Your task to perform on an android device: turn on translation in the chrome app Image 0: 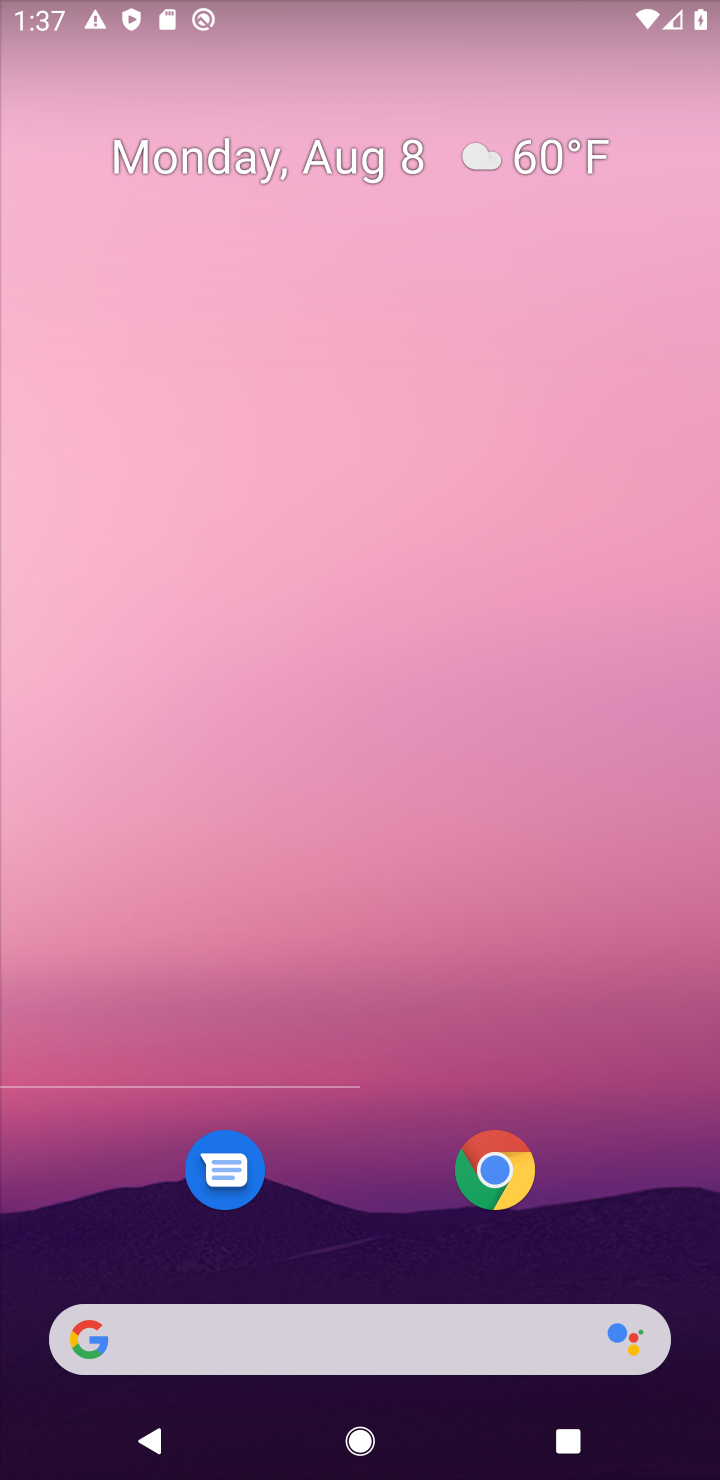
Step 0: press home button
Your task to perform on an android device: turn on translation in the chrome app Image 1: 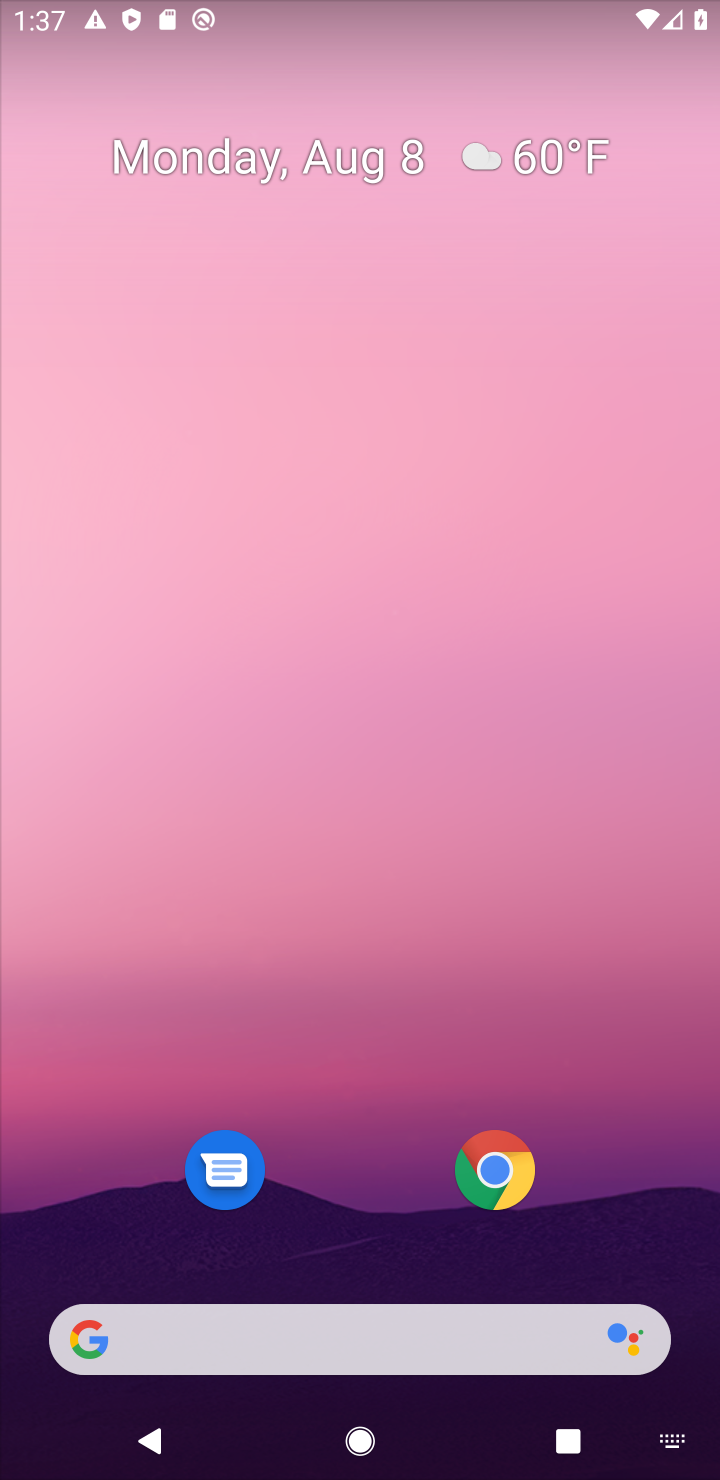
Step 1: click (464, 1188)
Your task to perform on an android device: turn on translation in the chrome app Image 2: 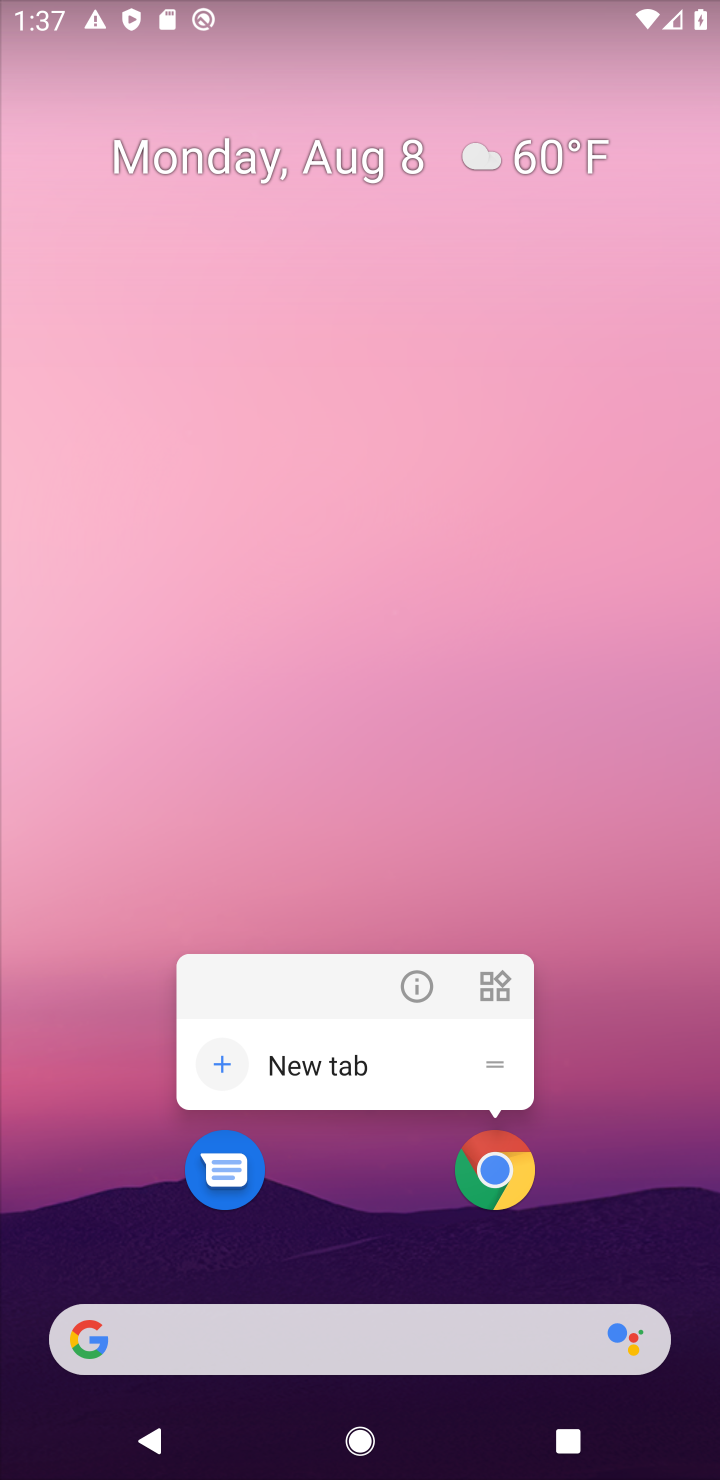
Step 2: click (464, 1188)
Your task to perform on an android device: turn on translation in the chrome app Image 3: 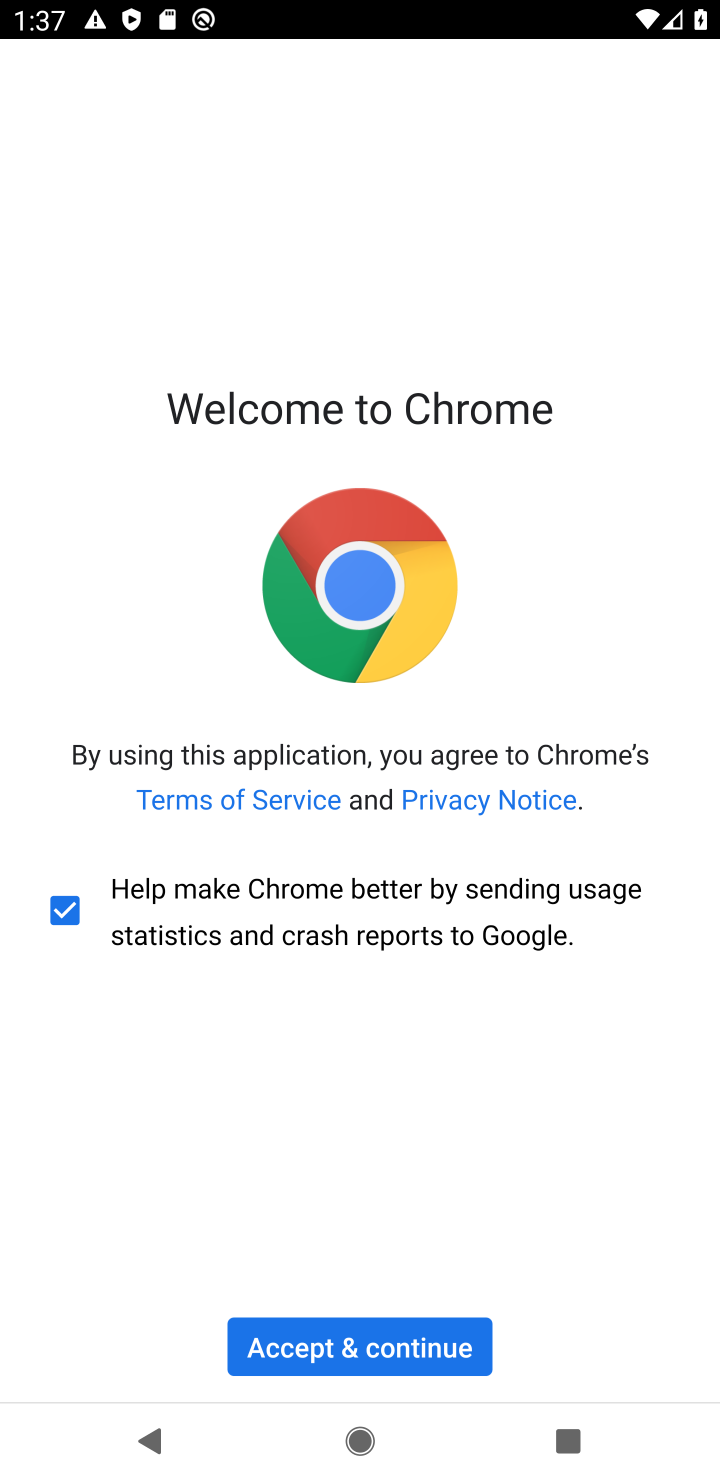
Step 3: click (321, 1331)
Your task to perform on an android device: turn on translation in the chrome app Image 4: 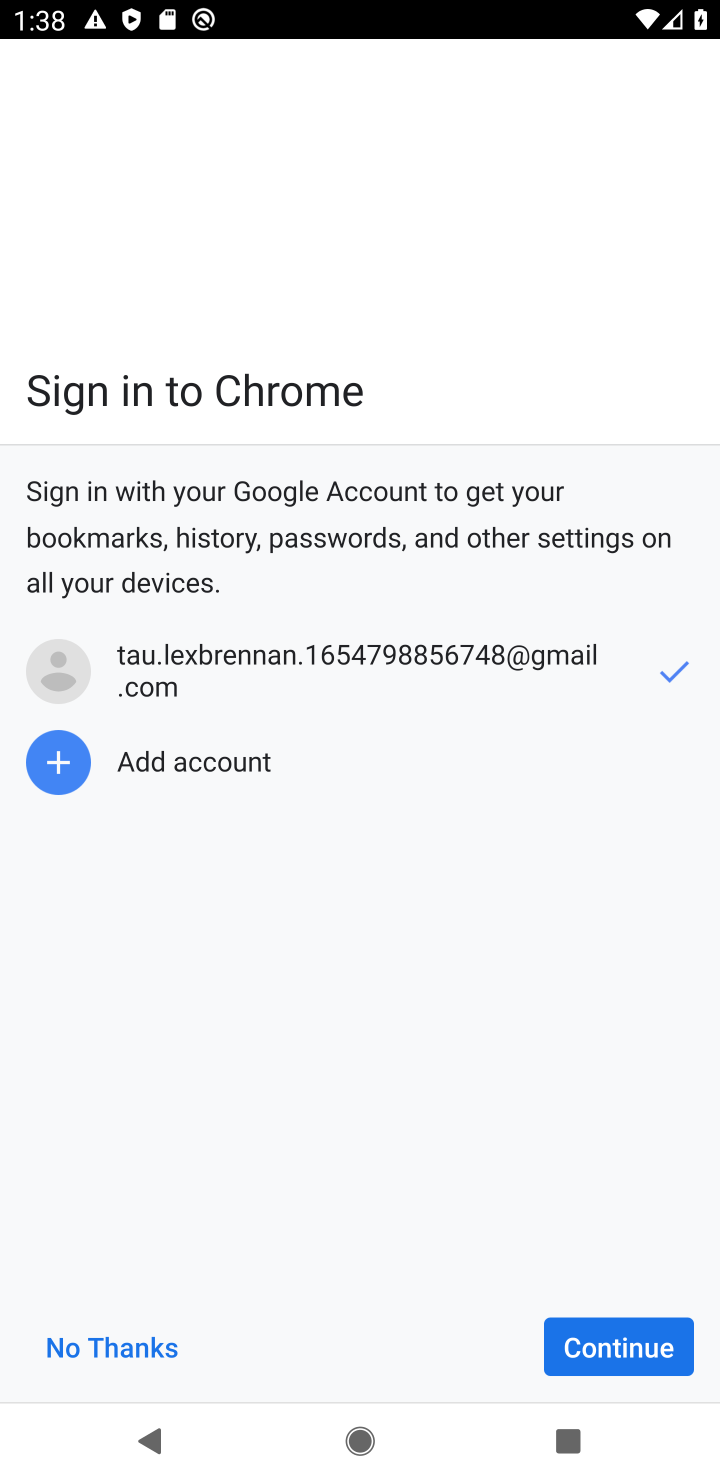
Step 4: click (594, 1318)
Your task to perform on an android device: turn on translation in the chrome app Image 5: 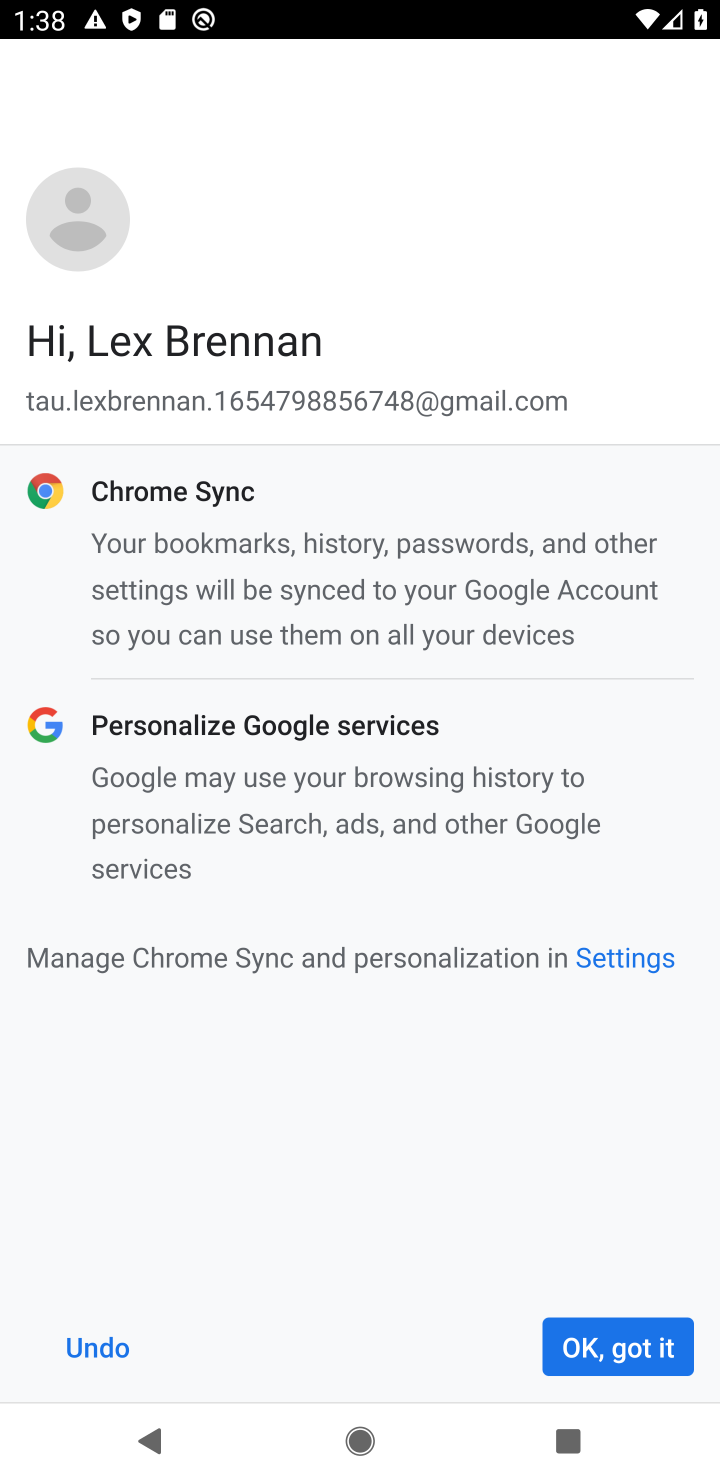
Step 5: press home button
Your task to perform on an android device: turn on translation in the chrome app Image 6: 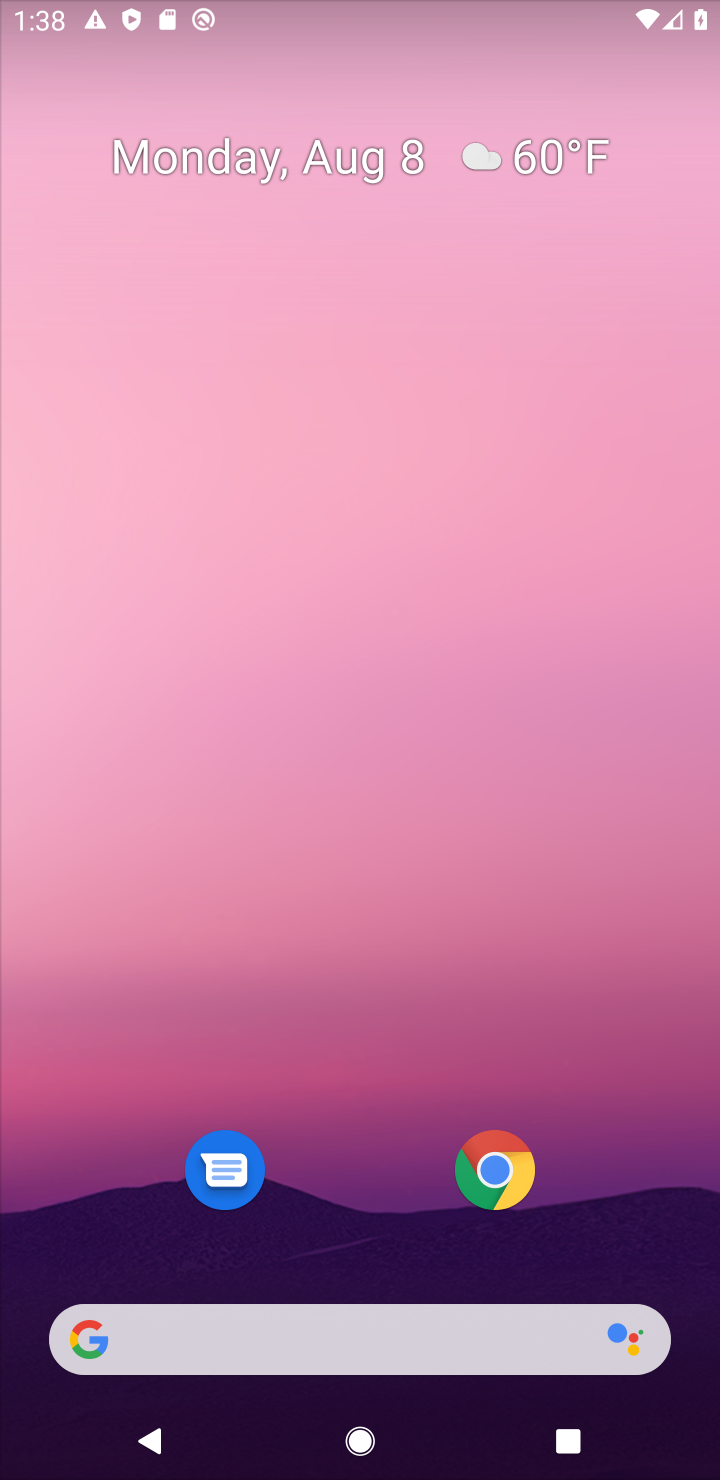
Step 6: click (474, 1175)
Your task to perform on an android device: turn on translation in the chrome app Image 7: 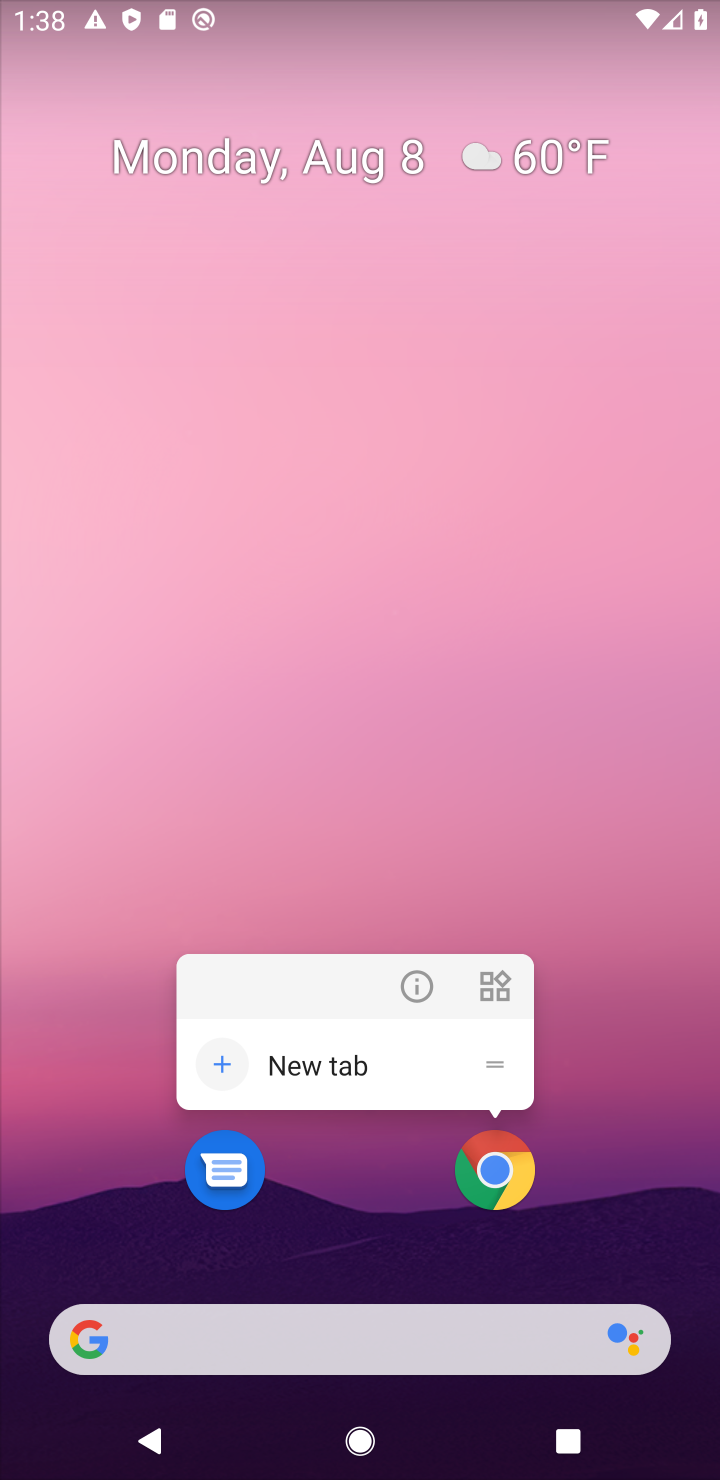
Step 7: click (526, 1157)
Your task to perform on an android device: turn on translation in the chrome app Image 8: 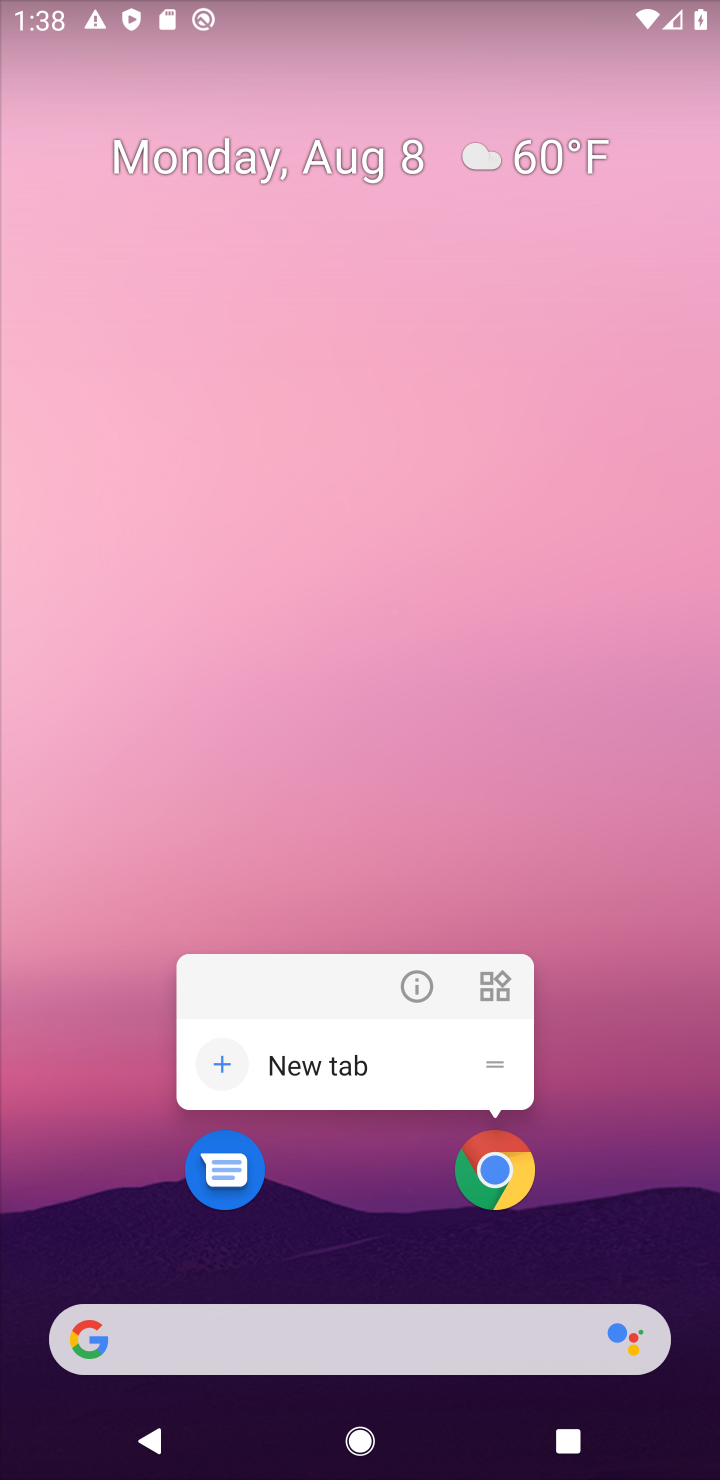
Step 8: click (524, 1157)
Your task to perform on an android device: turn on translation in the chrome app Image 9: 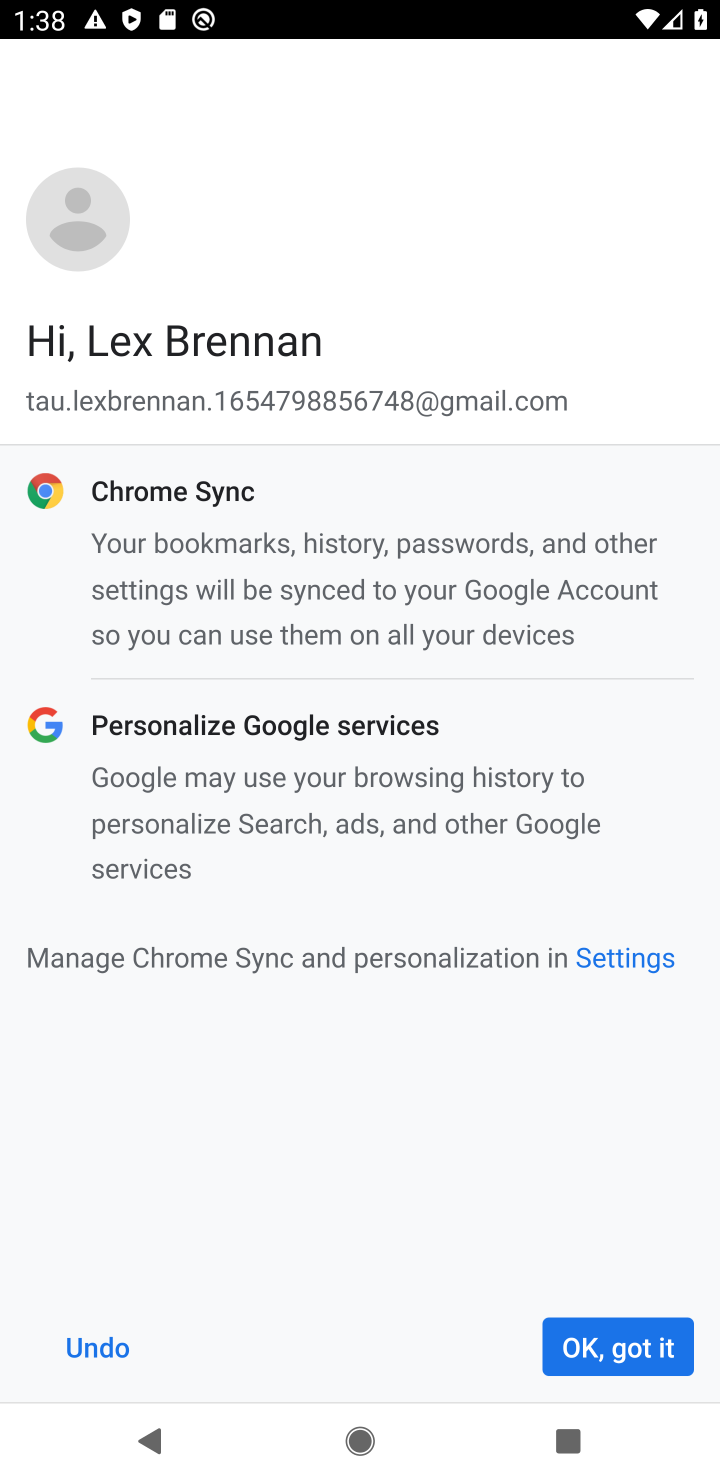
Step 9: click (591, 1330)
Your task to perform on an android device: turn on translation in the chrome app Image 10: 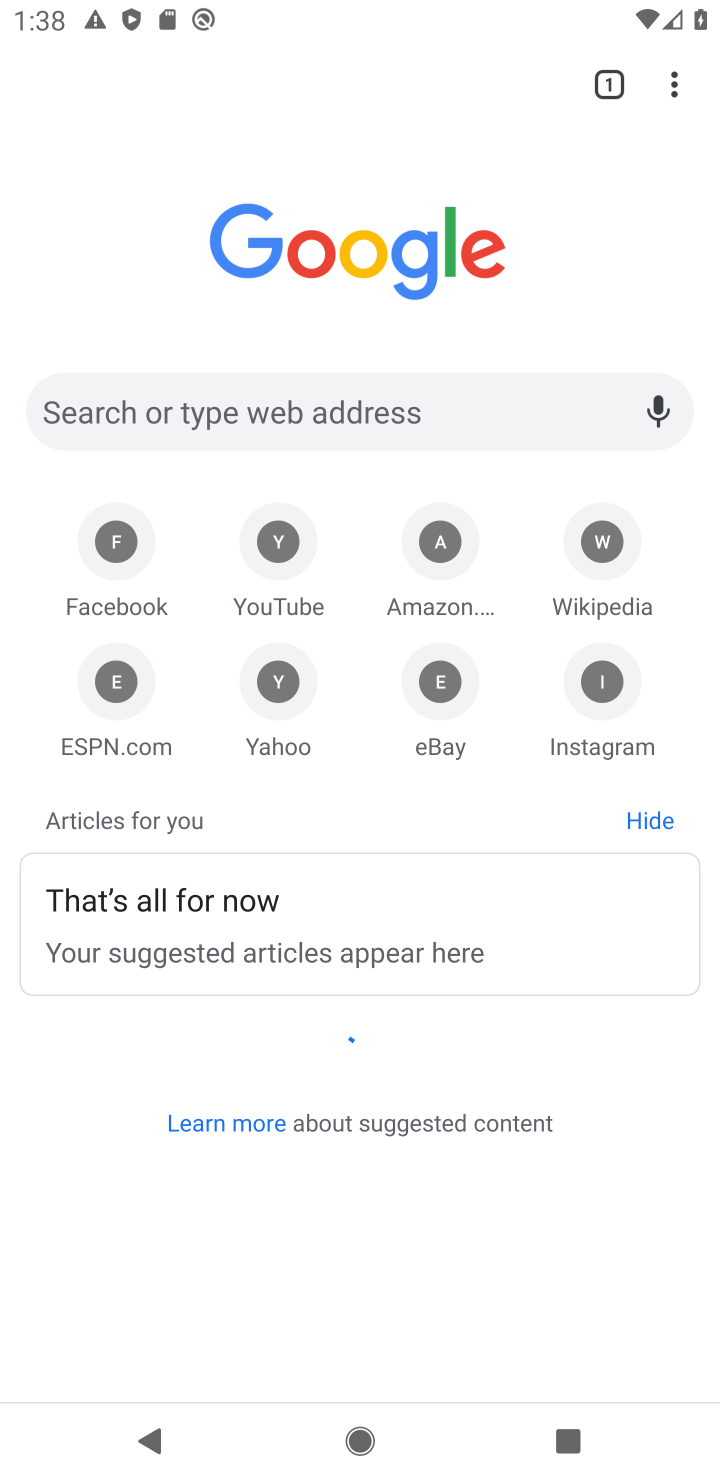
Step 10: click (674, 89)
Your task to perform on an android device: turn on translation in the chrome app Image 11: 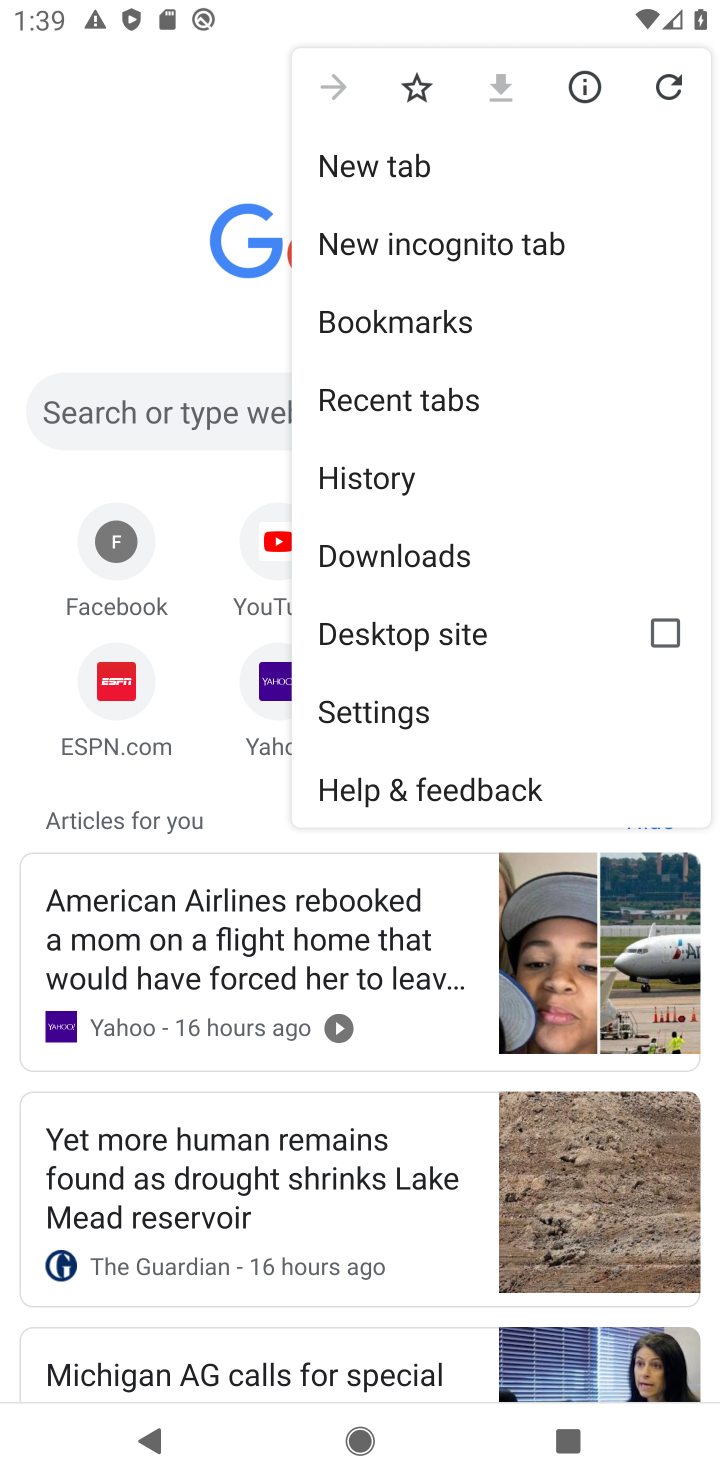
Step 11: click (378, 703)
Your task to perform on an android device: turn on translation in the chrome app Image 12: 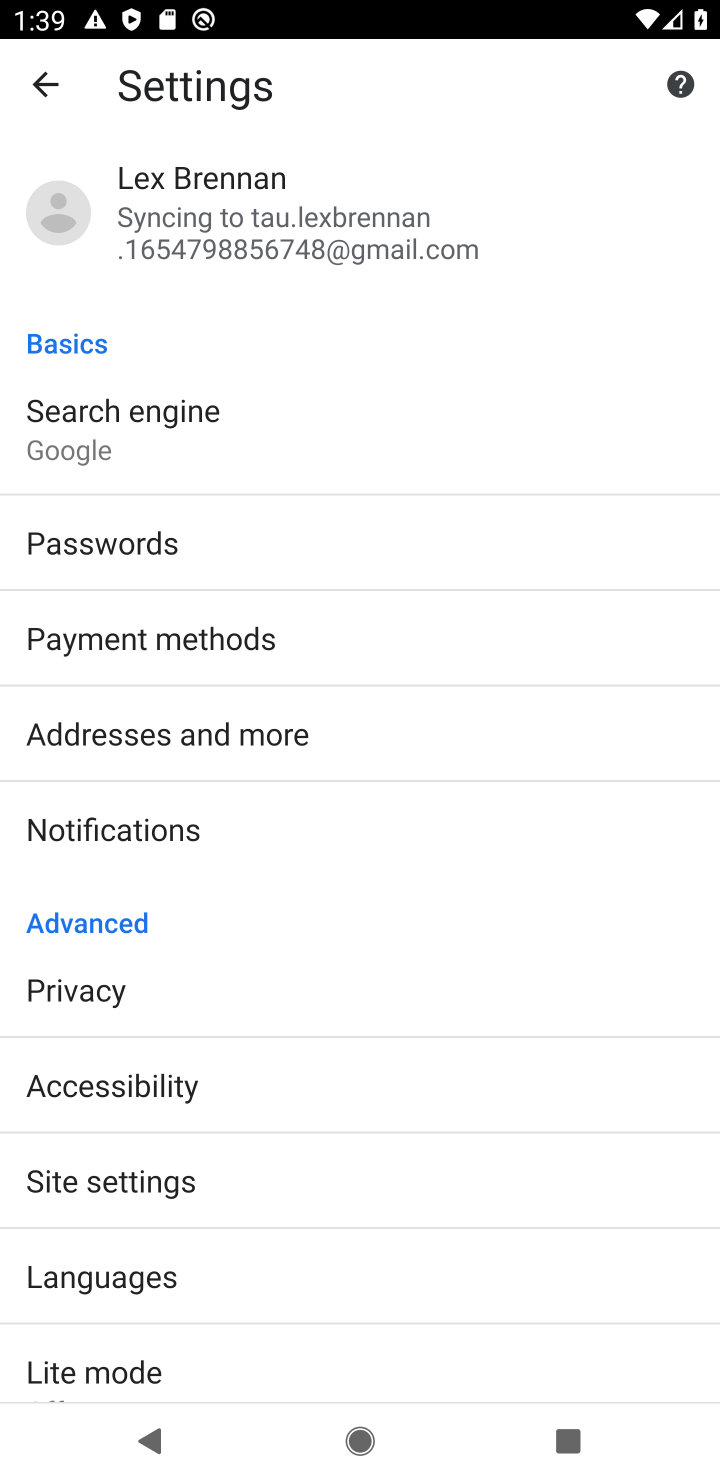
Step 12: click (188, 1268)
Your task to perform on an android device: turn on translation in the chrome app Image 13: 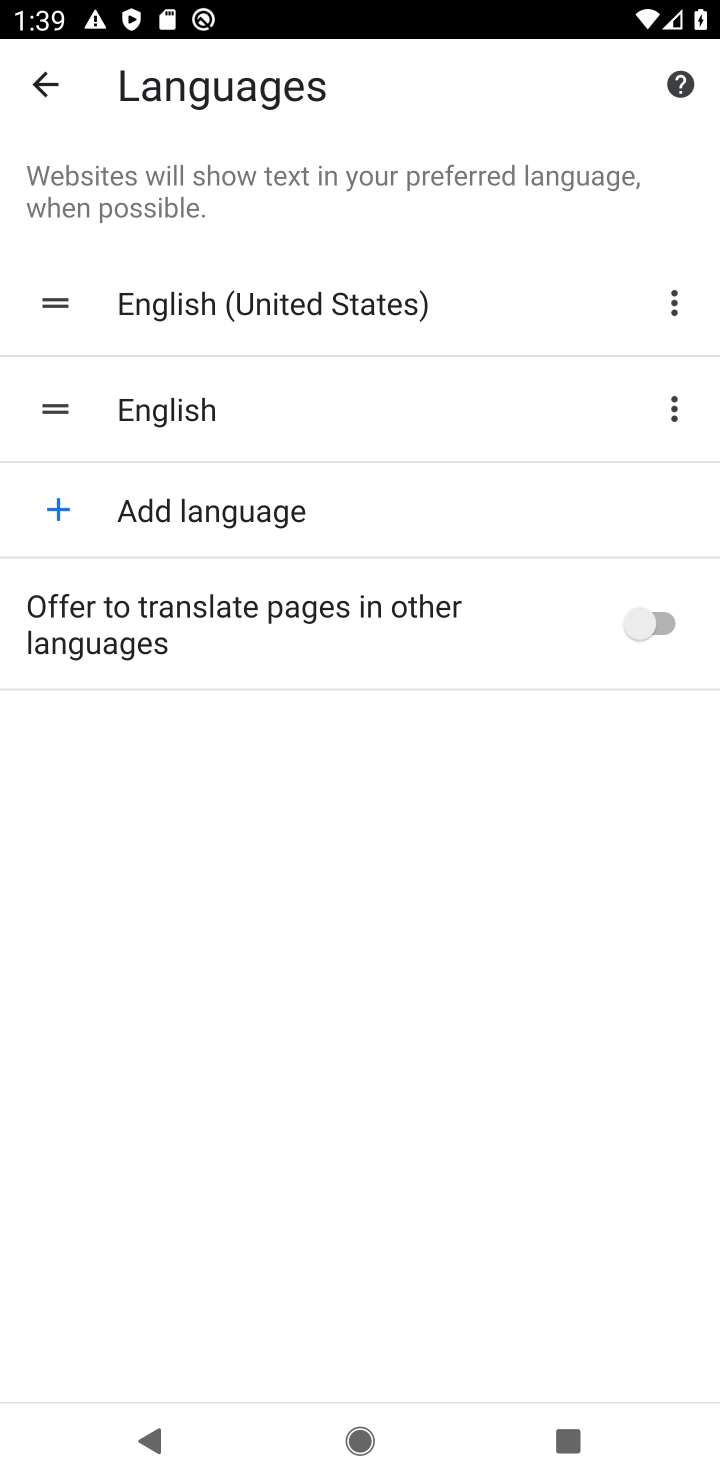
Step 13: click (657, 631)
Your task to perform on an android device: turn on translation in the chrome app Image 14: 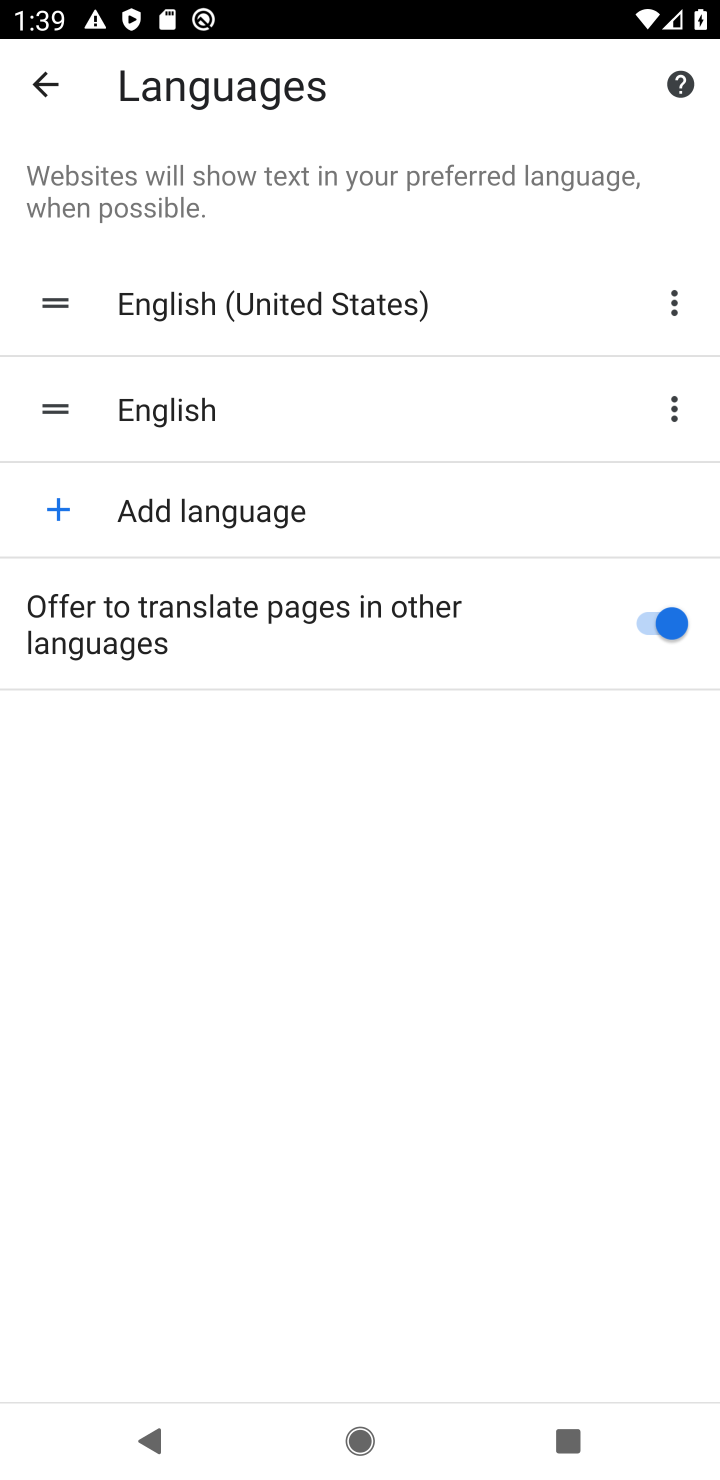
Step 14: task complete